Your task to perform on an android device: Search for "acer nitro" on newegg, select the first entry, add it to the cart, then select checkout. Image 0: 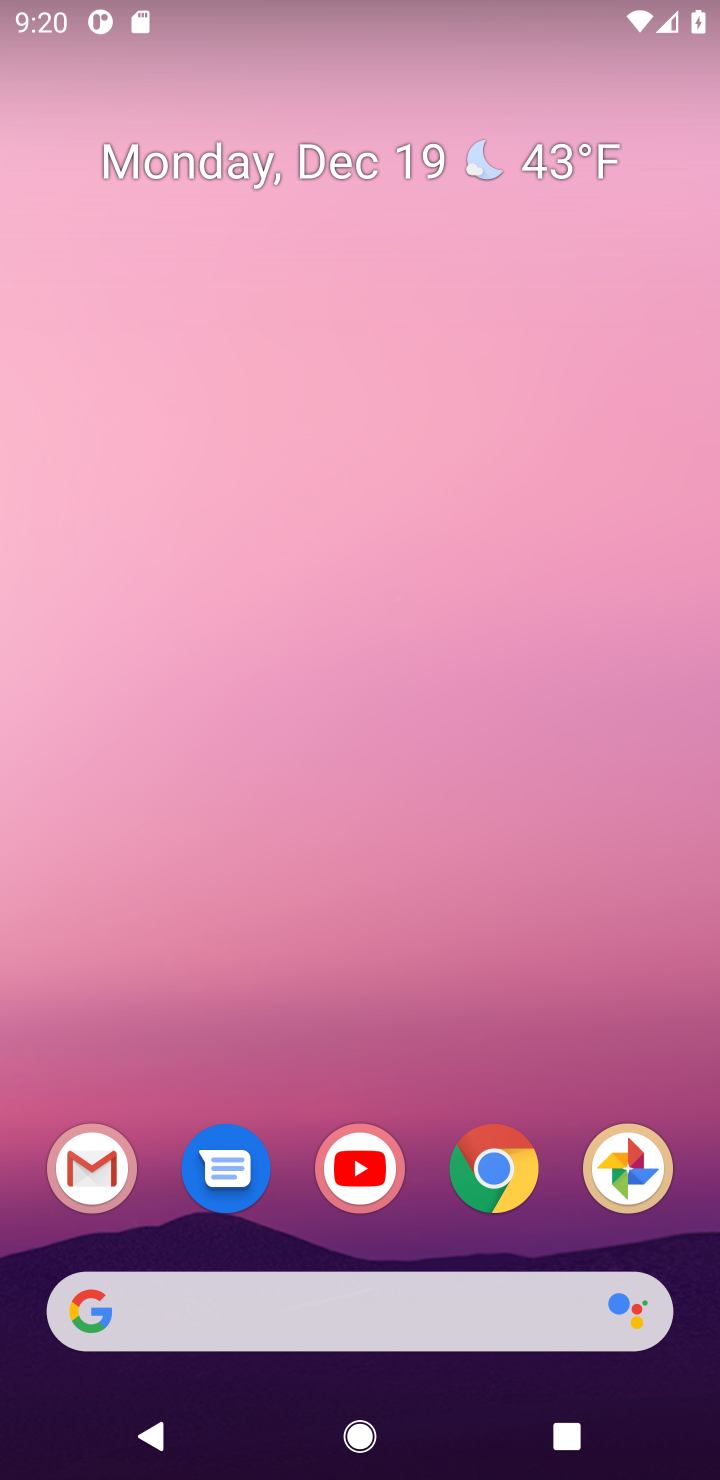
Step 0: click (504, 1183)
Your task to perform on an android device: Search for "acer nitro" on newegg, select the first entry, add it to the cart, then select checkout. Image 1: 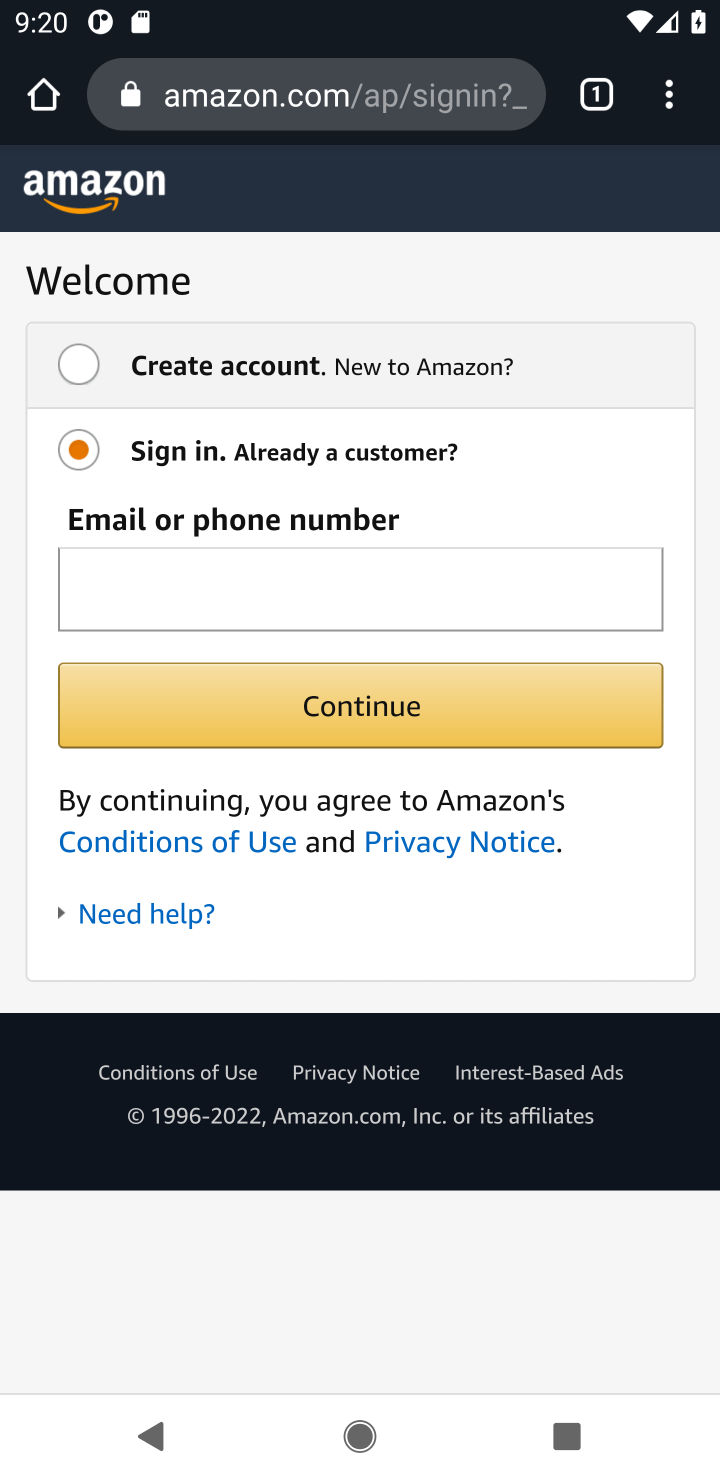
Step 1: click (280, 109)
Your task to perform on an android device: Search for "acer nitro" on newegg, select the first entry, add it to the cart, then select checkout. Image 2: 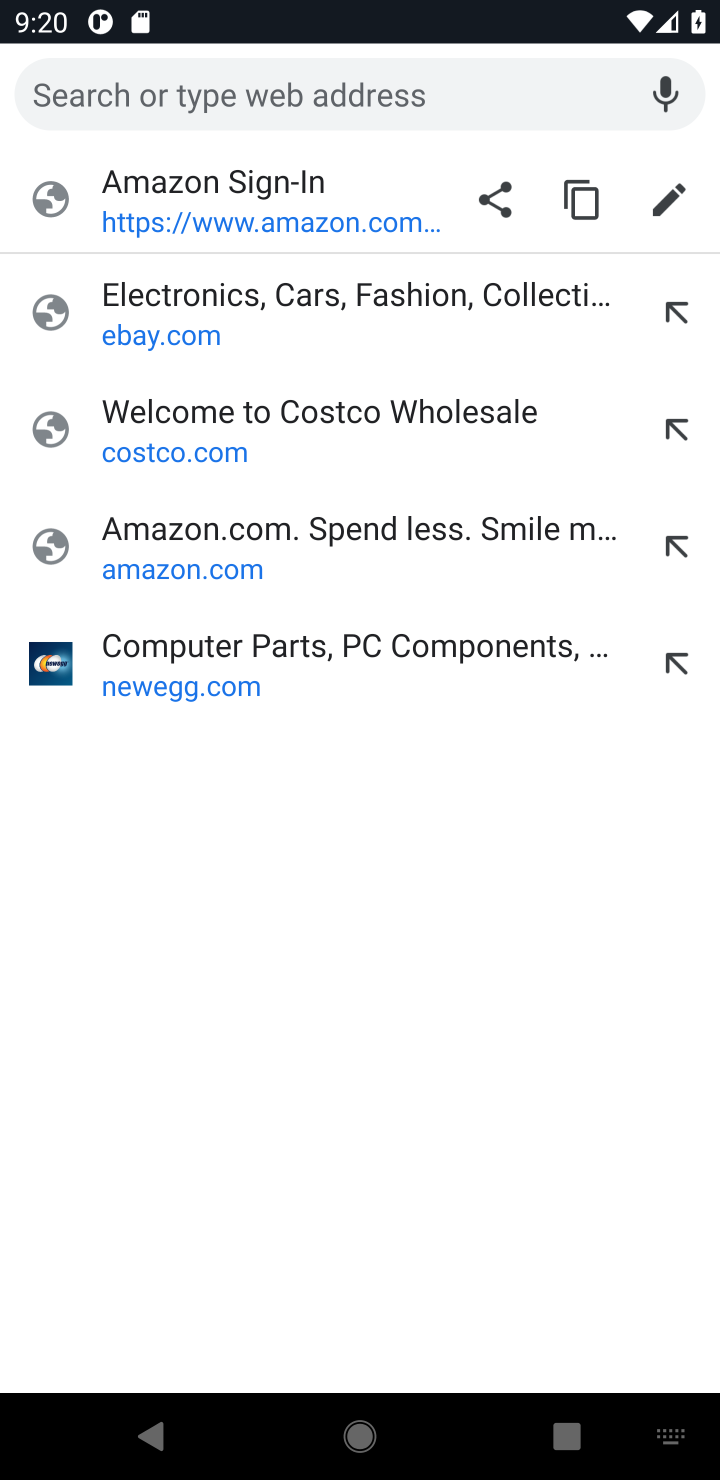
Step 2: click (155, 666)
Your task to perform on an android device: Search for "acer nitro" on newegg, select the first entry, add it to the cart, then select checkout. Image 3: 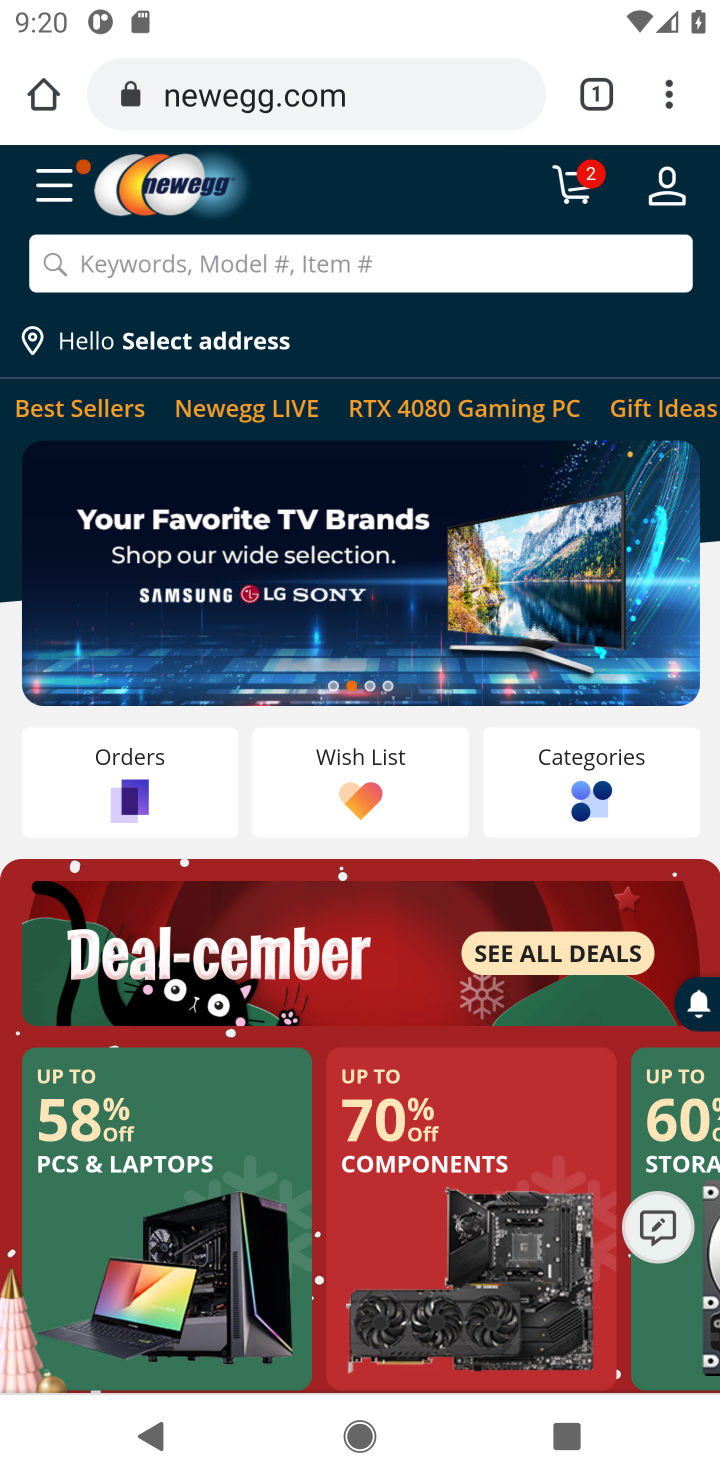
Step 3: click (118, 265)
Your task to perform on an android device: Search for "acer nitro" on newegg, select the first entry, add it to the cart, then select checkout. Image 4: 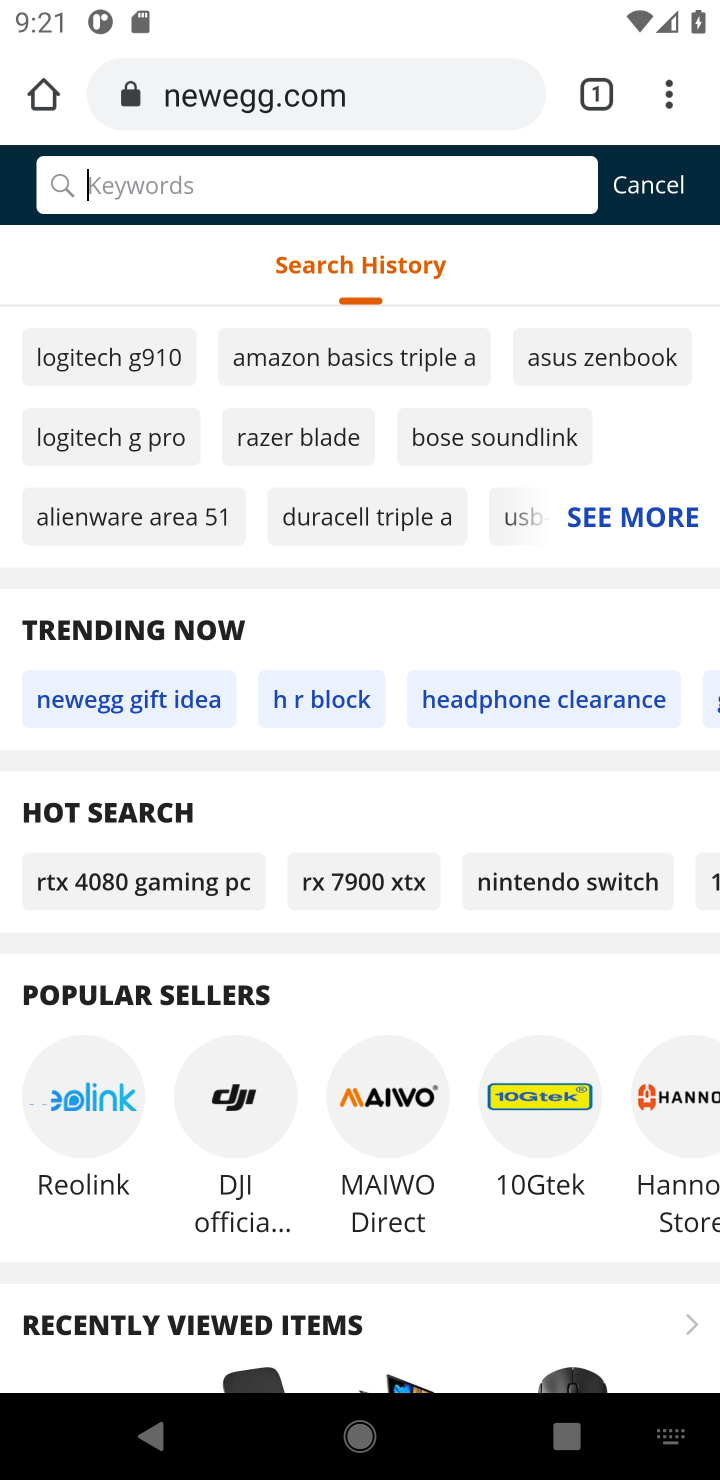
Step 4: type "acer nitro"
Your task to perform on an android device: Search for "acer nitro" on newegg, select the first entry, add it to the cart, then select checkout. Image 5: 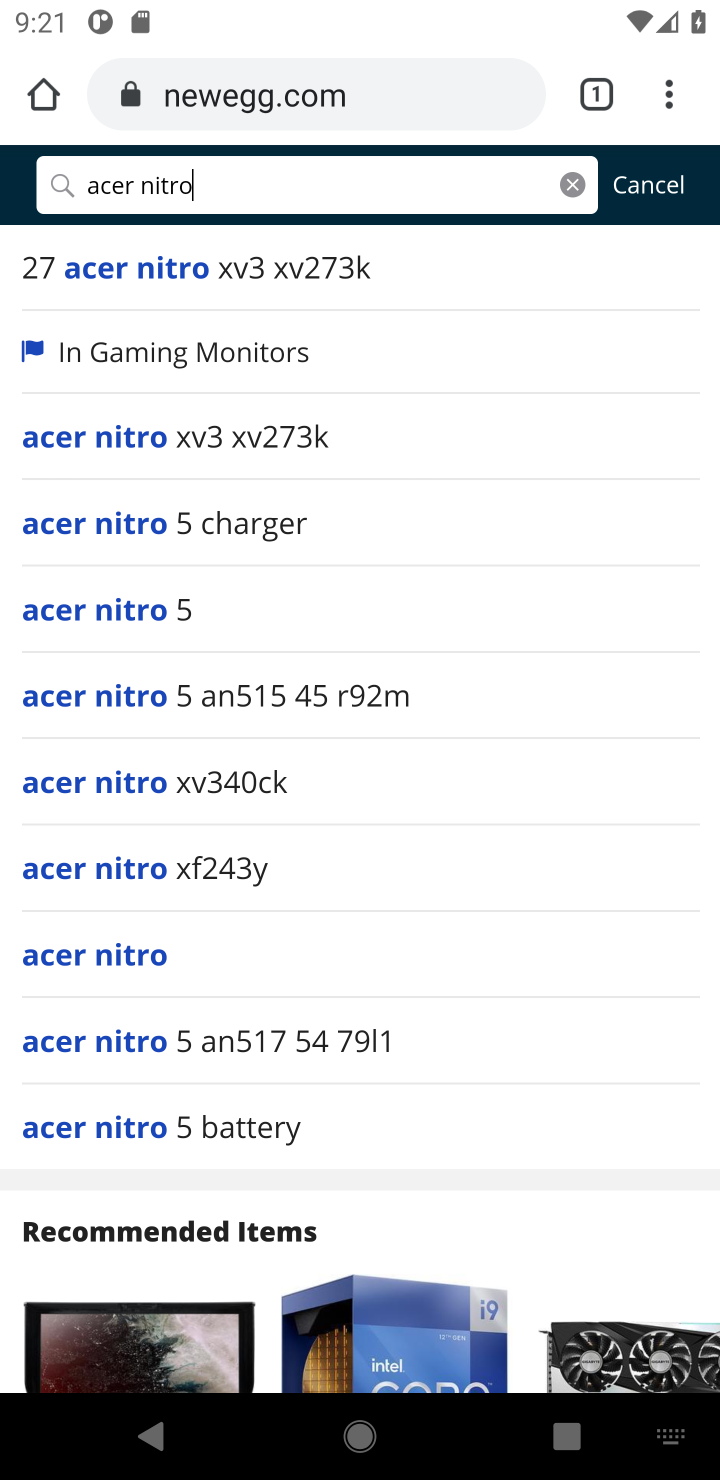
Step 5: click (144, 954)
Your task to perform on an android device: Search for "acer nitro" on newegg, select the first entry, add it to the cart, then select checkout. Image 6: 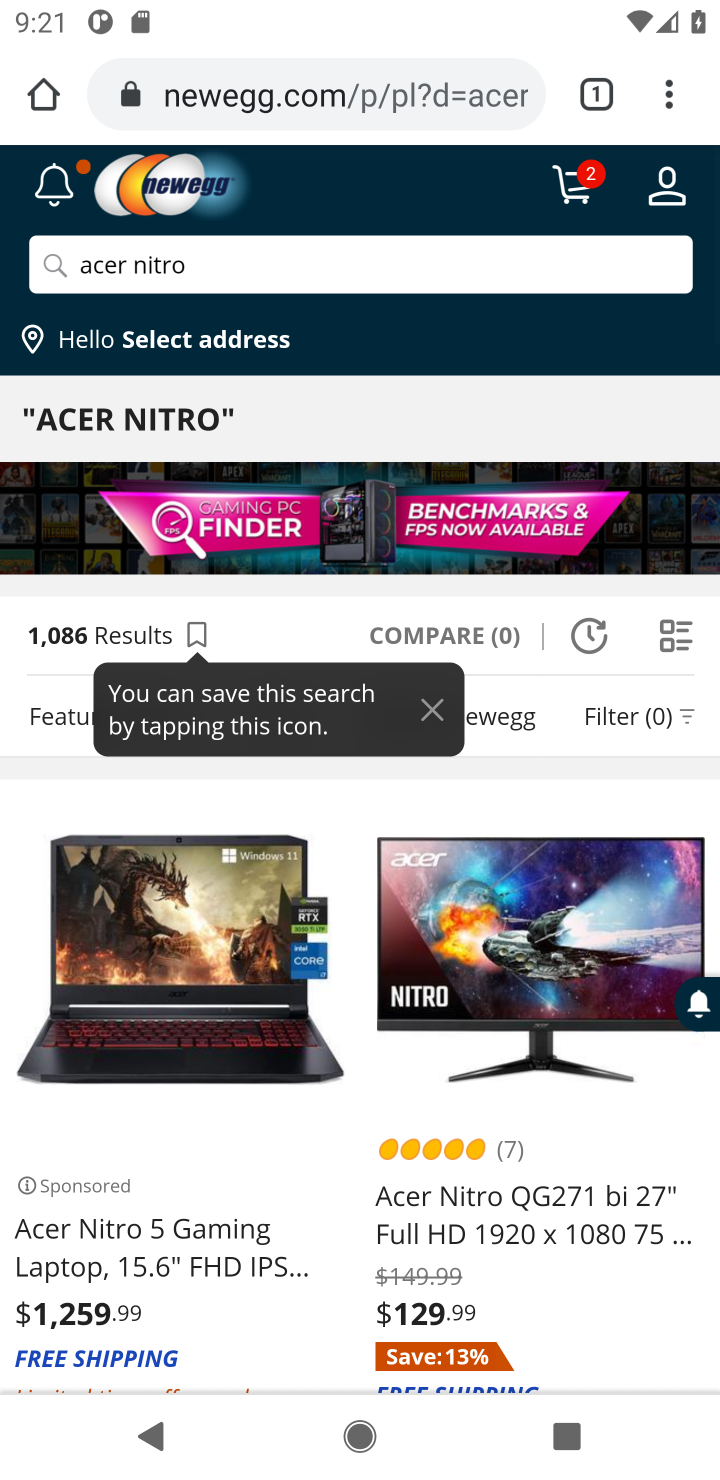
Step 6: click (136, 1273)
Your task to perform on an android device: Search for "acer nitro" on newegg, select the first entry, add it to the cart, then select checkout. Image 7: 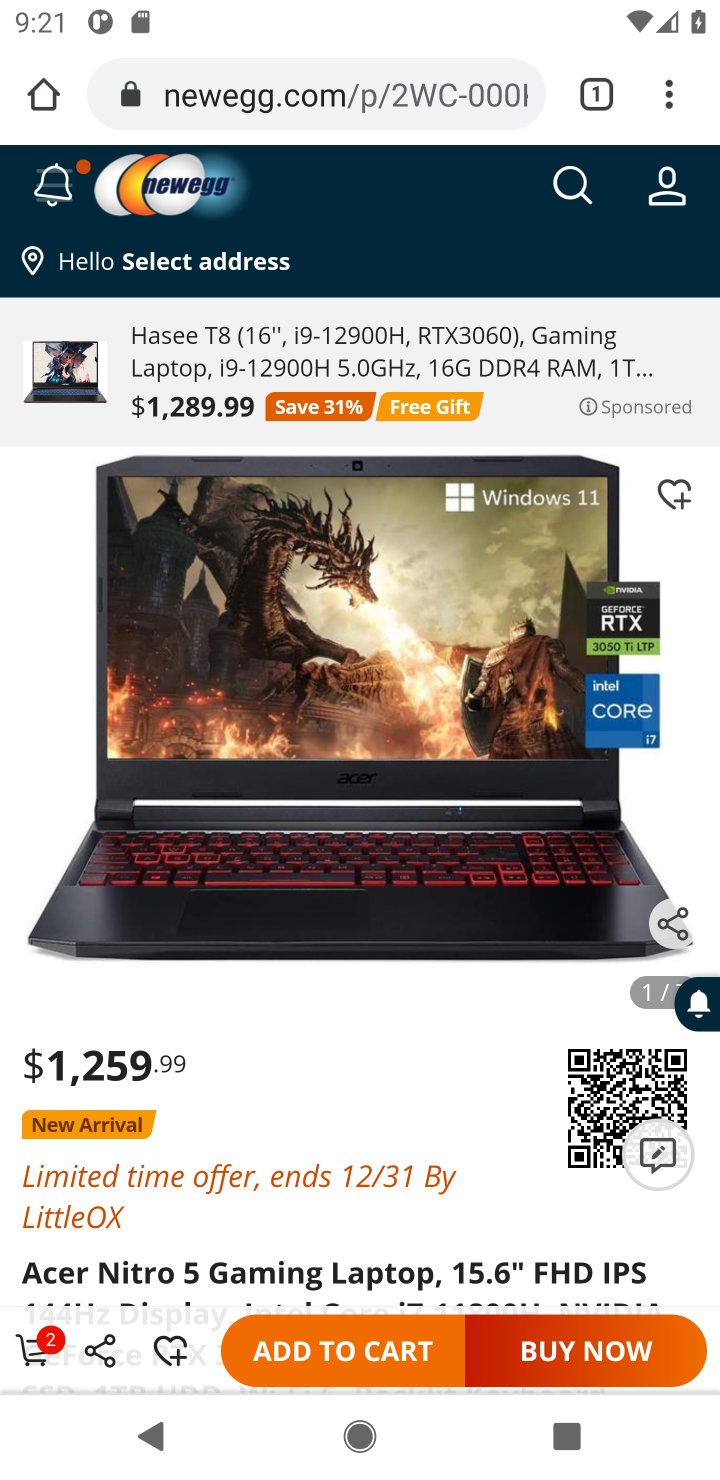
Step 7: click (299, 1355)
Your task to perform on an android device: Search for "acer nitro" on newegg, select the first entry, add it to the cart, then select checkout. Image 8: 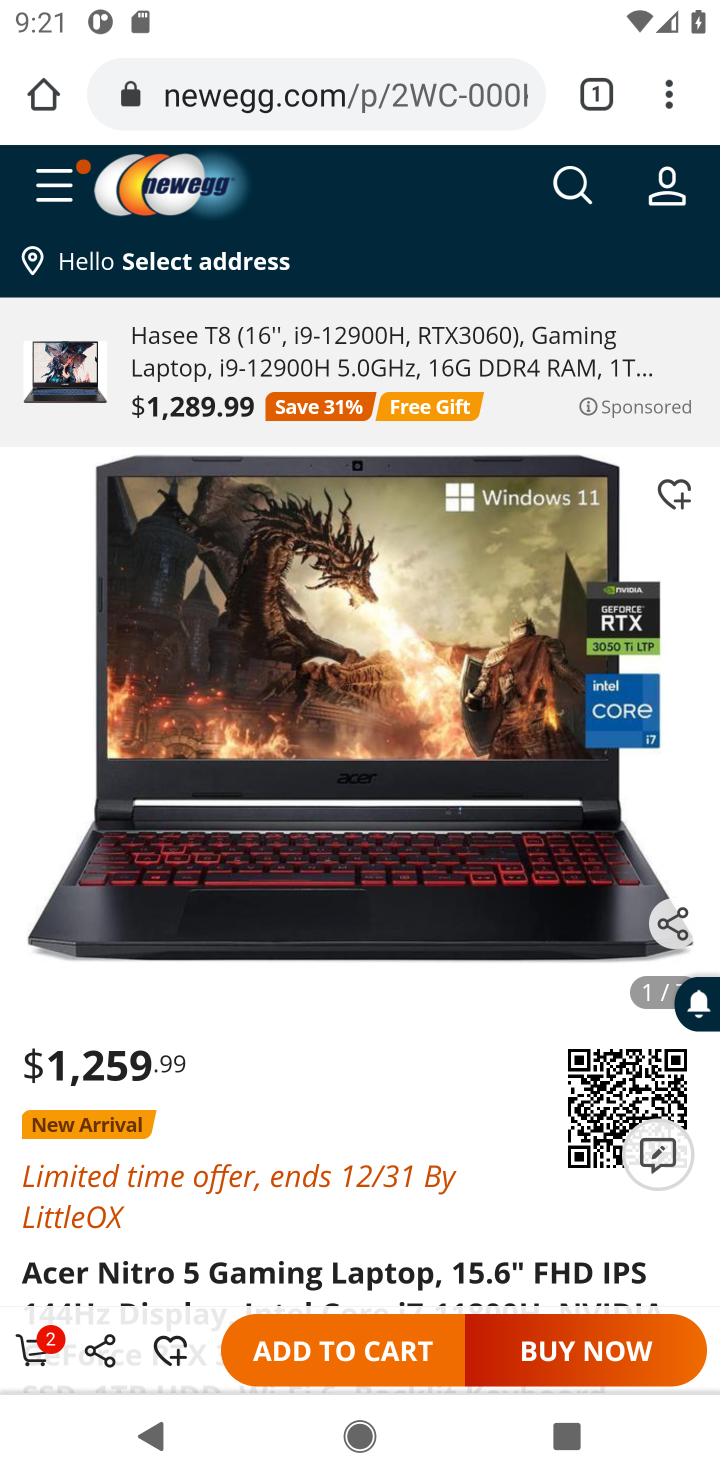
Step 8: click (325, 1359)
Your task to perform on an android device: Search for "acer nitro" on newegg, select the first entry, add it to the cart, then select checkout. Image 9: 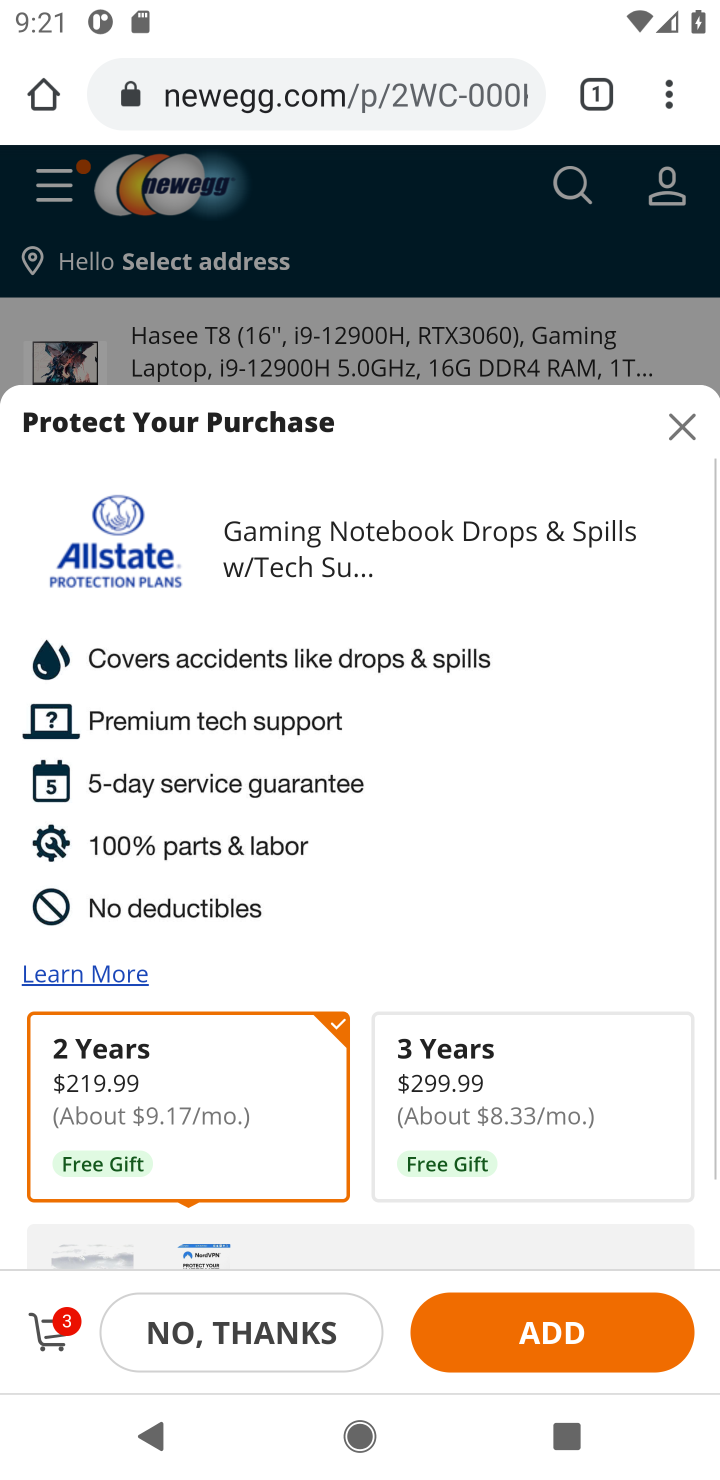
Step 9: click (56, 1331)
Your task to perform on an android device: Search for "acer nitro" on newegg, select the first entry, add it to the cart, then select checkout. Image 10: 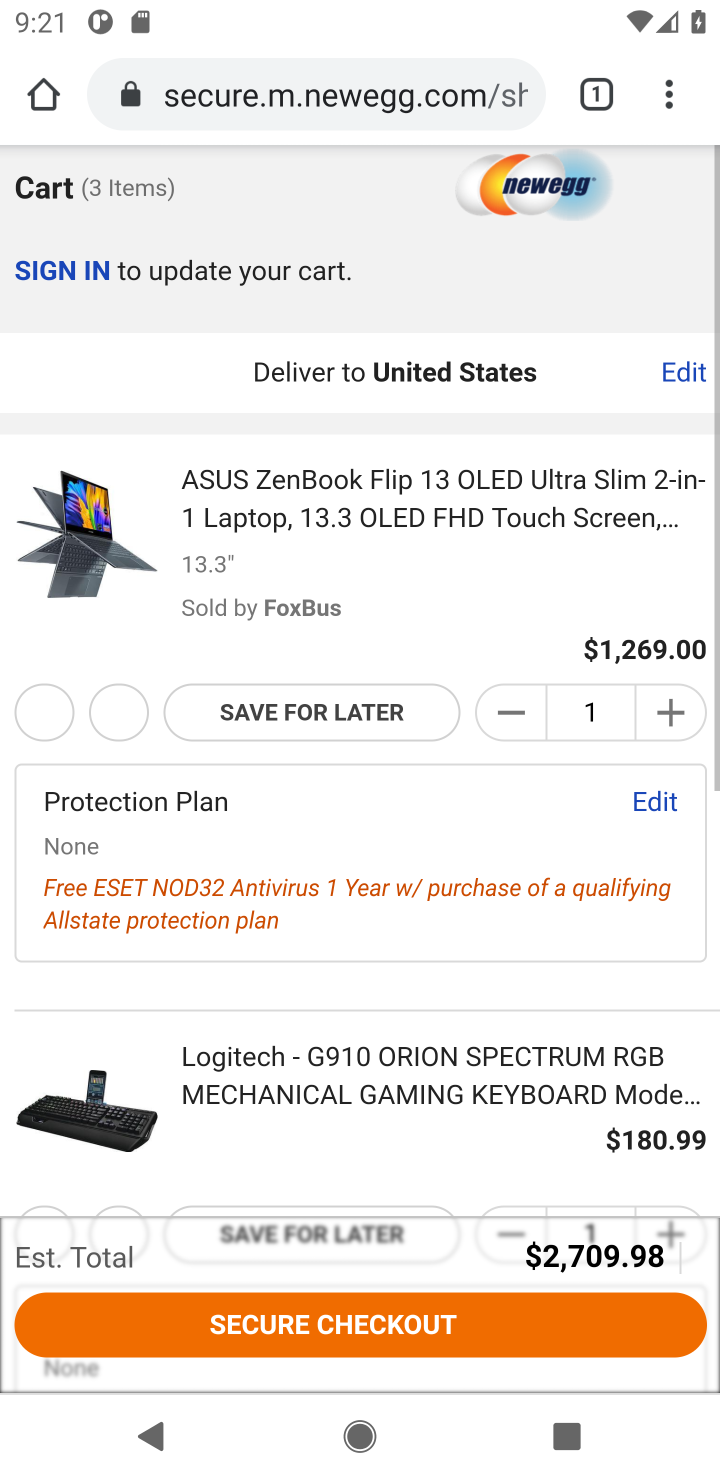
Step 10: click (311, 1316)
Your task to perform on an android device: Search for "acer nitro" on newegg, select the first entry, add it to the cart, then select checkout. Image 11: 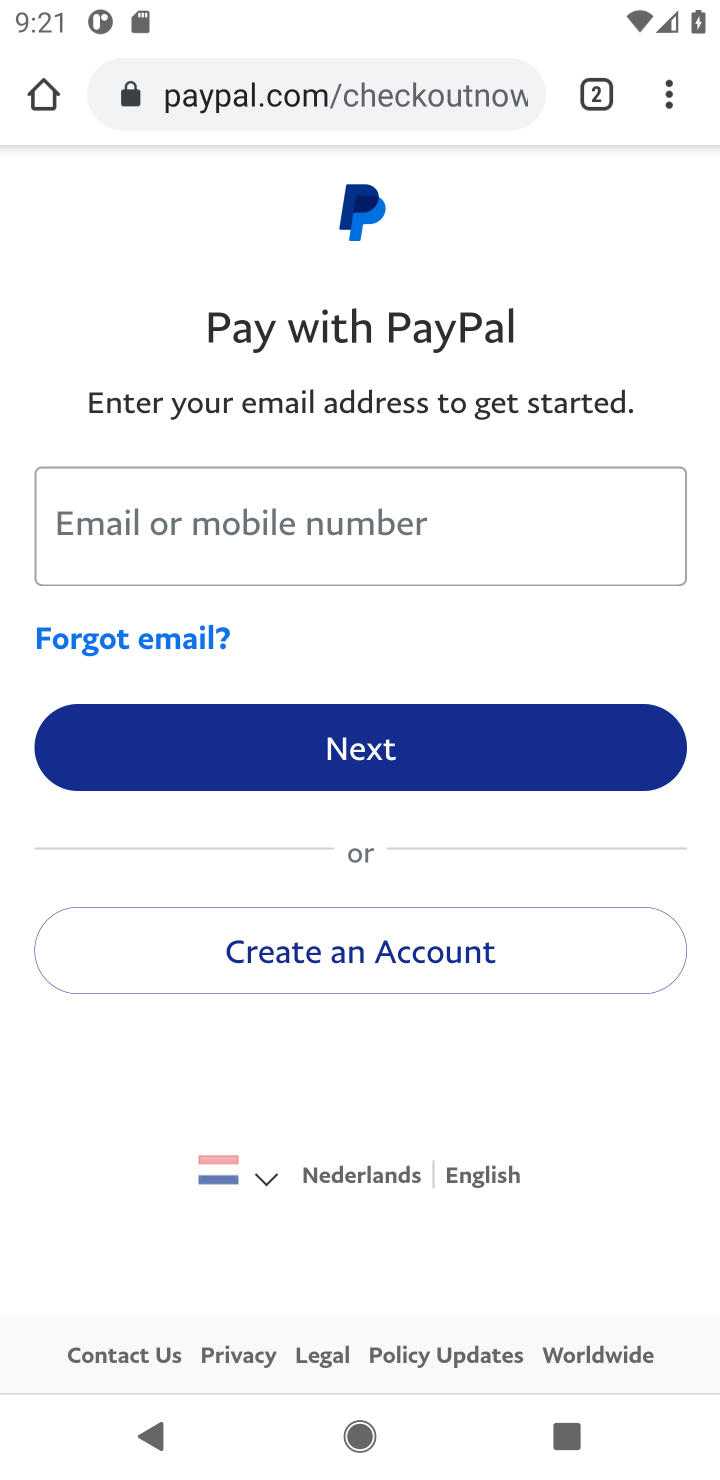
Step 11: task complete